Your task to perform on an android device: Empty the shopping cart on target.com. Image 0: 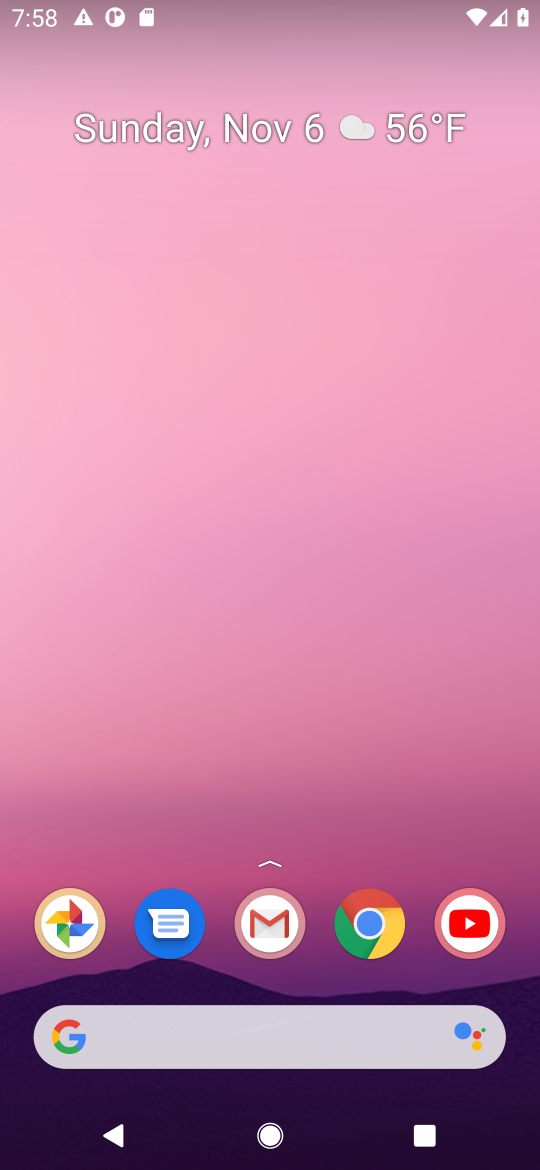
Step 0: click (352, 928)
Your task to perform on an android device: Empty the shopping cart on target.com. Image 1: 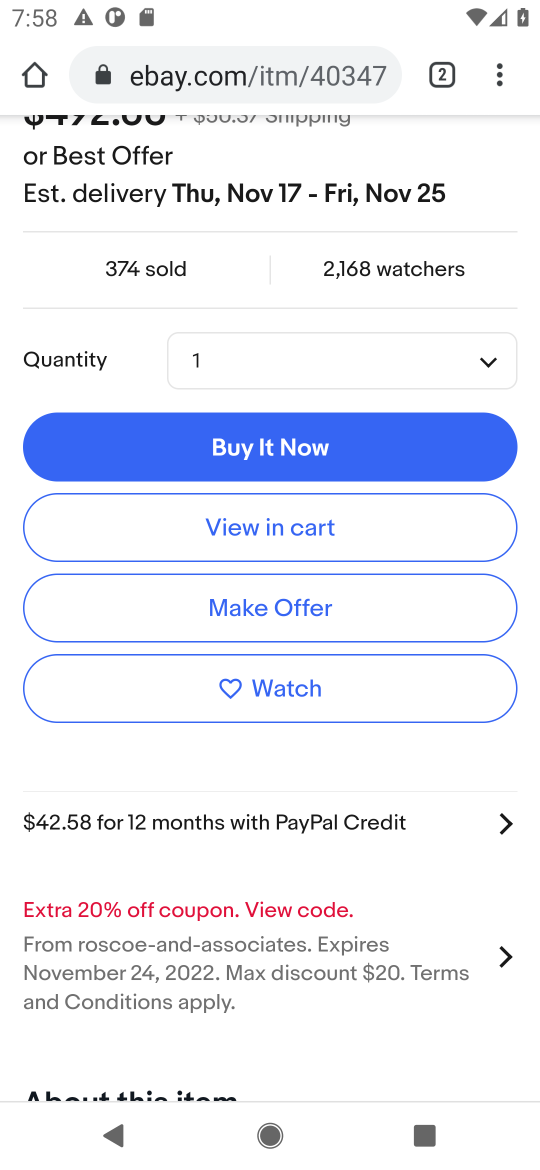
Step 1: click (230, 81)
Your task to perform on an android device: Empty the shopping cart on target.com. Image 2: 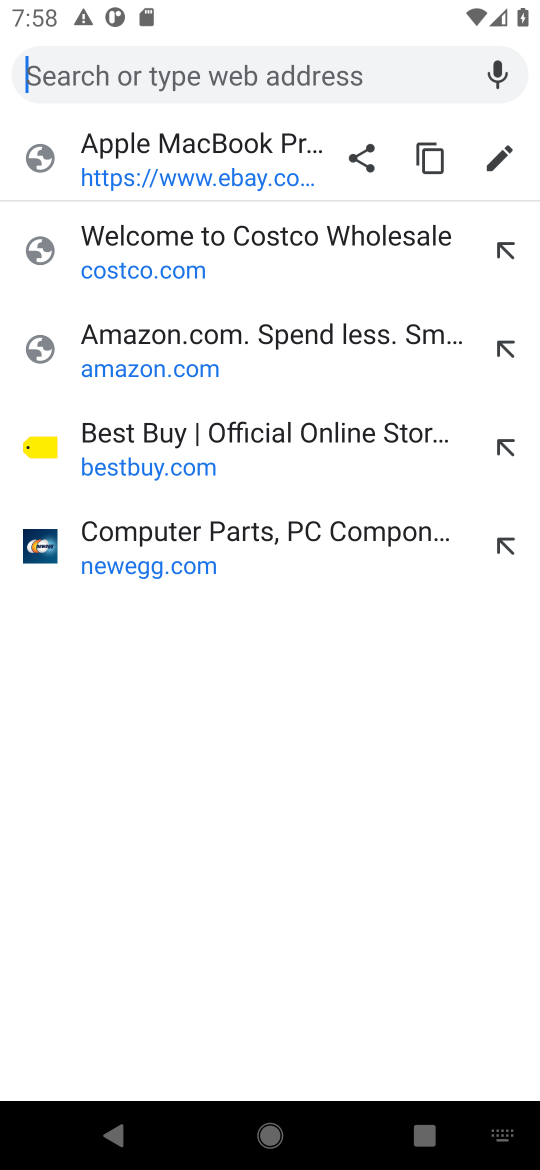
Step 2: type "target.com"
Your task to perform on an android device: Empty the shopping cart on target.com. Image 3: 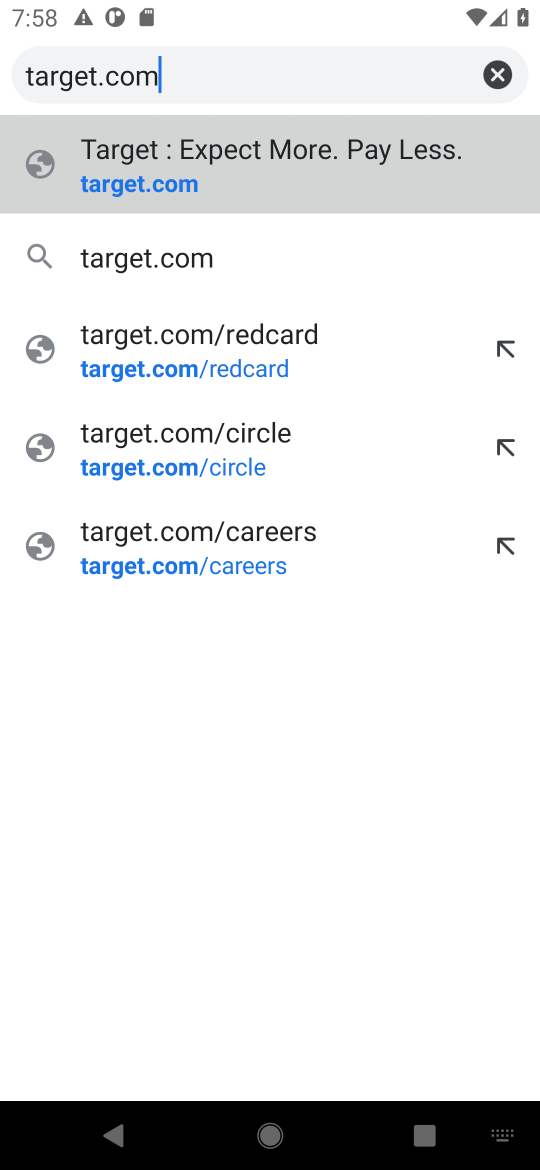
Step 3: click (158, 256)
Your task to perform on an android device: Empty the shopping cart on target.com. Image 4: 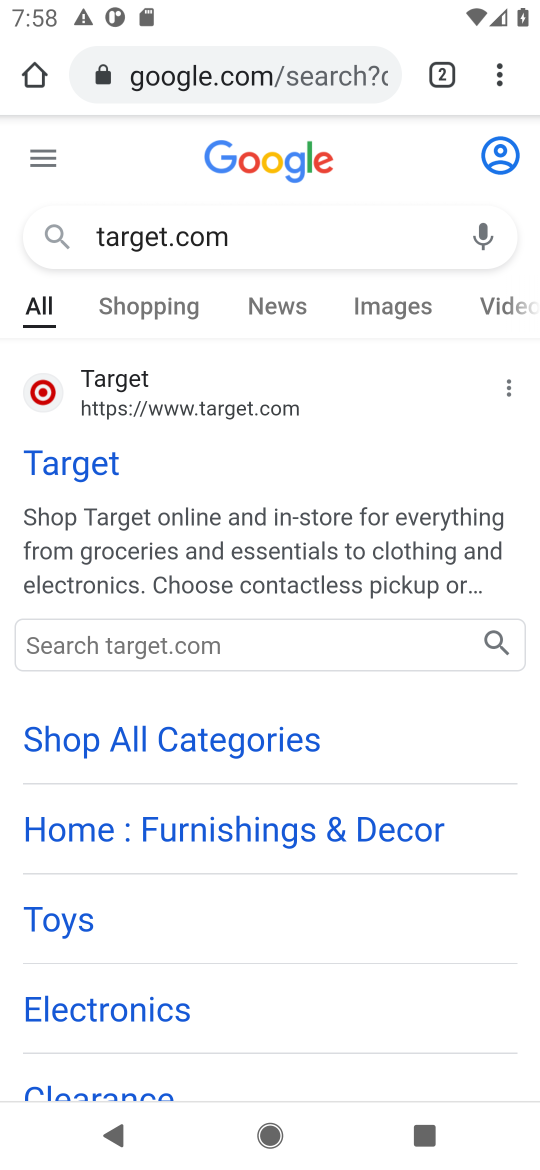
Step 4: click (86, 481)
Your task to perform on an android device: Empty the shopping cart on target.com. Image 5: 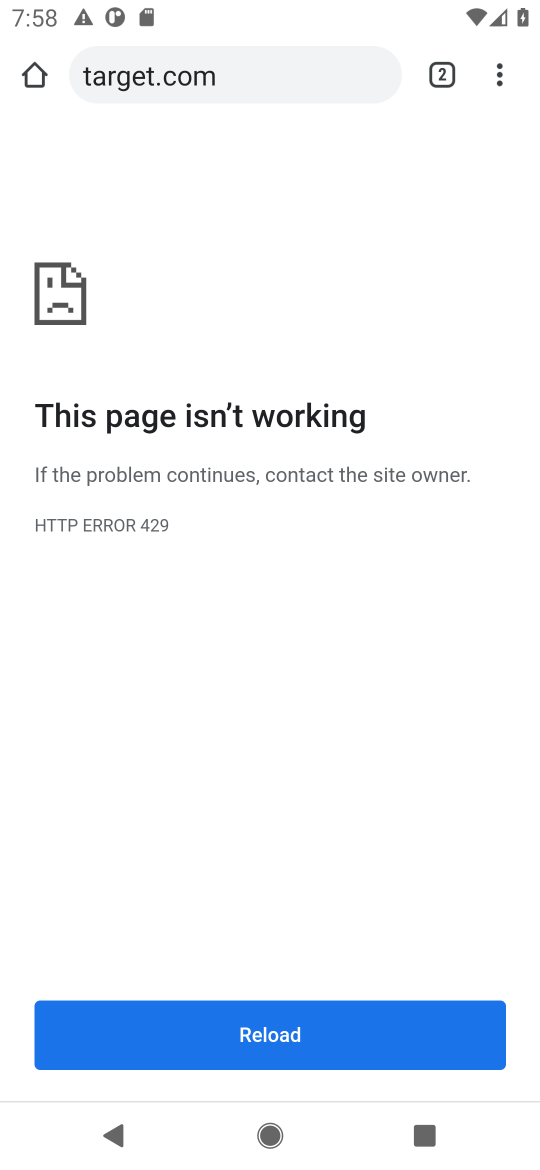
Step 5: click (276, 1045)
Your task to perform on an android device: Empty the shopping cart on target.com. Image 6: 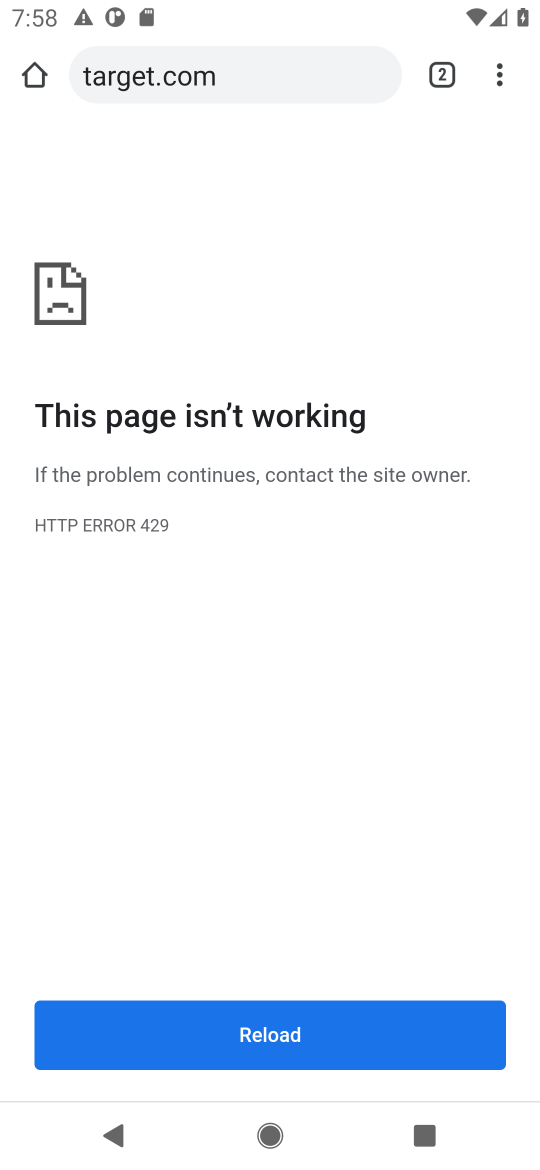
Step 6: press back button
Your task to perform on an android device: Empty the shopping cart on target.com. Image 7: 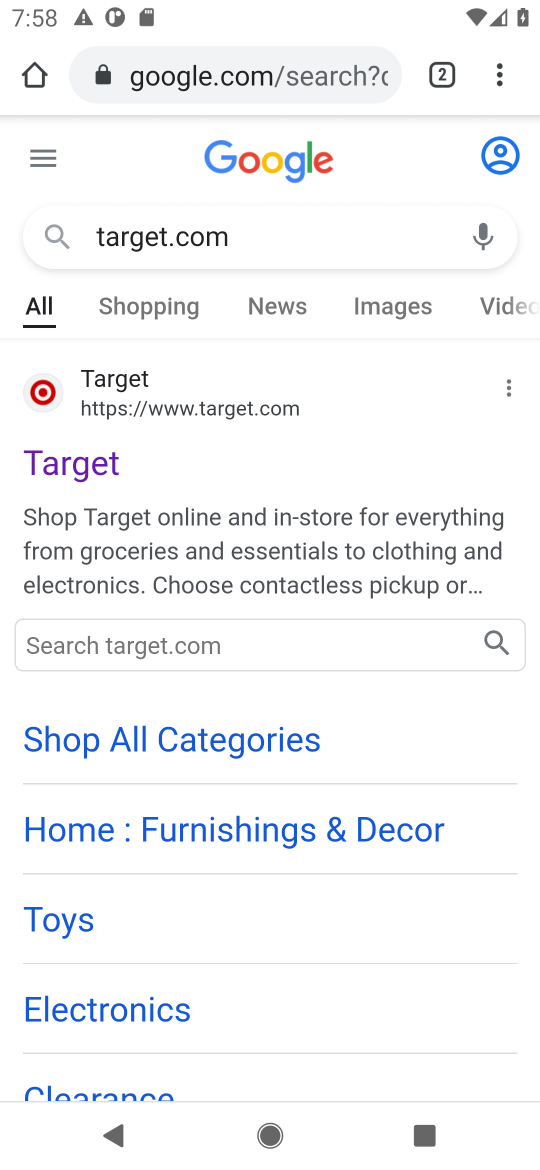
Step 7: drag from (180, 668) to (230, 387)
Your task to perform on an android device: Empty the shopping cart on target.com. Image 8: 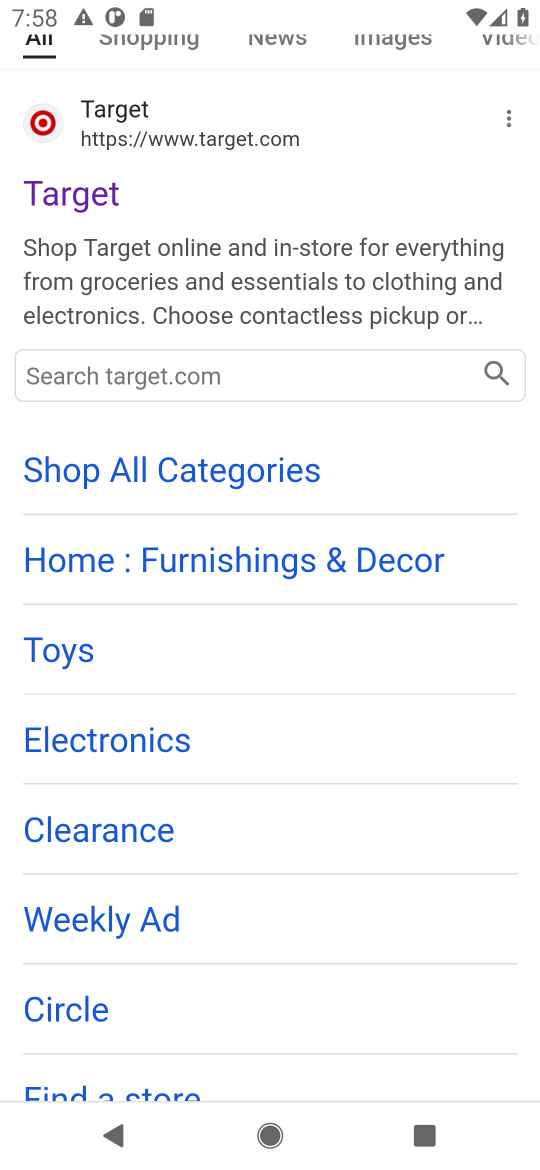
Step 8: drag from (213, 860) to (250, 334)
Your task to perform on an android device: Empty the shopping cart on target.com. Image 9: 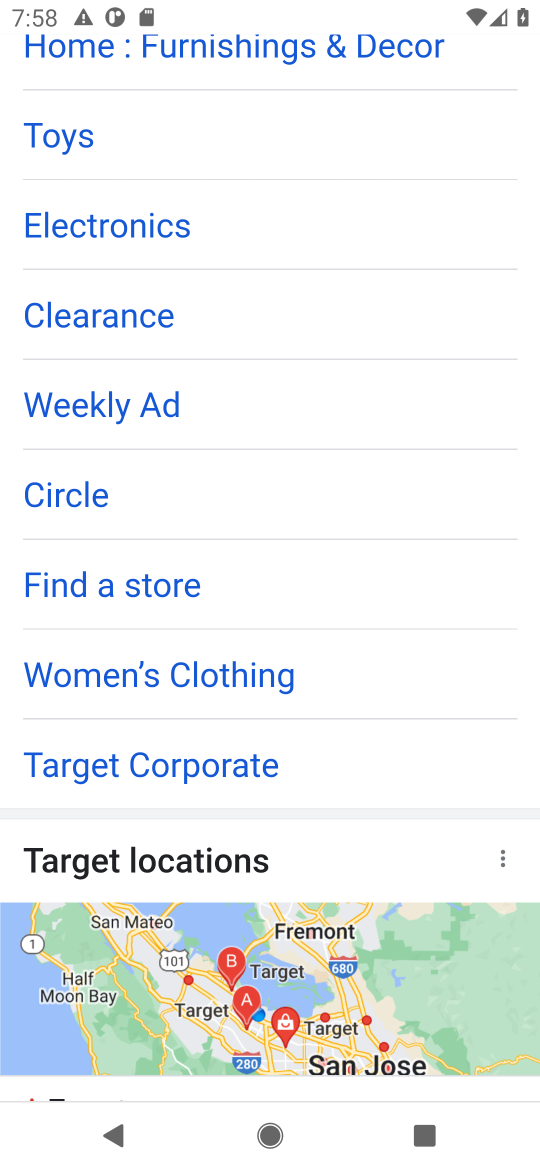
Step 9: drag from (215, 849) to (240, 412)
Your task to perform on an android device: Empty the shopping cart on target.com. Image 10: 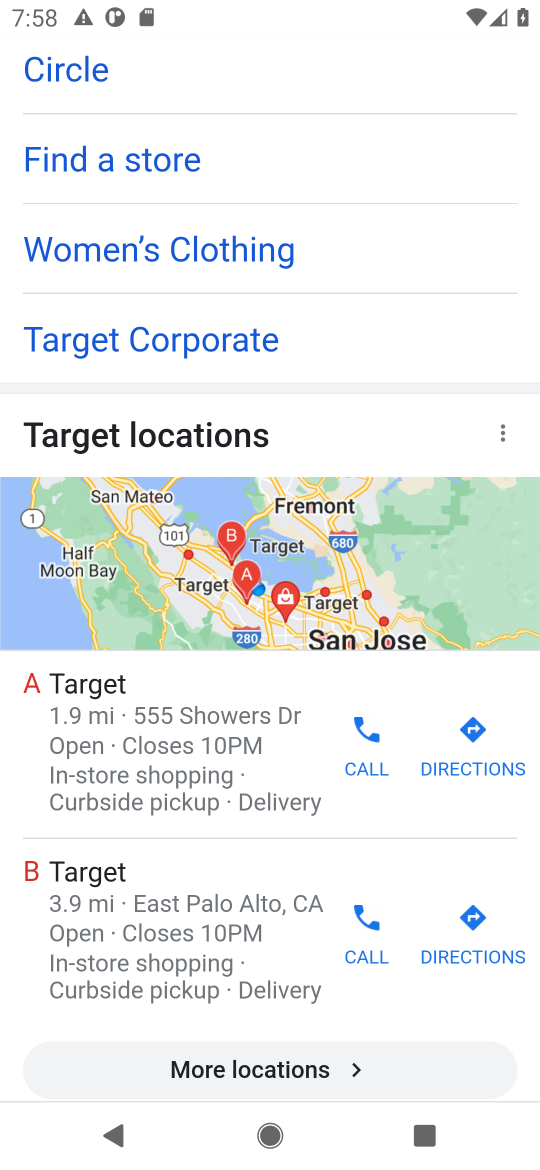
Step 10: drag from (192, 726) to (201, 416)
Your task to perform on an android device: Empty the shopping cart on target.com. Image 11: 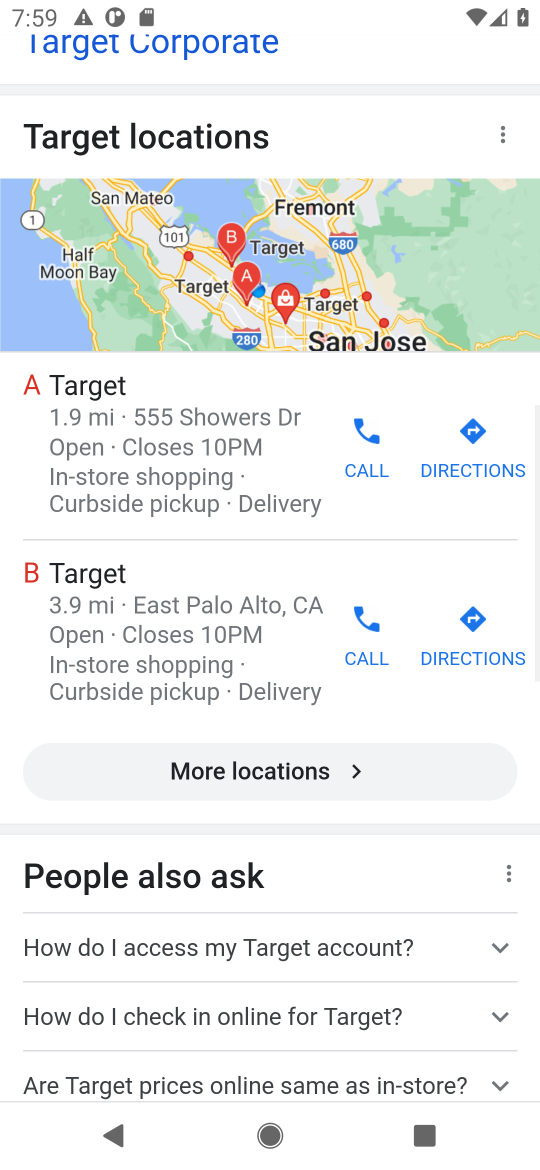
Step 11: drag from (198, 403) to (212, 1115)
Your task to perform on an android device: Empty the shopping cart on target.com. Image 12: 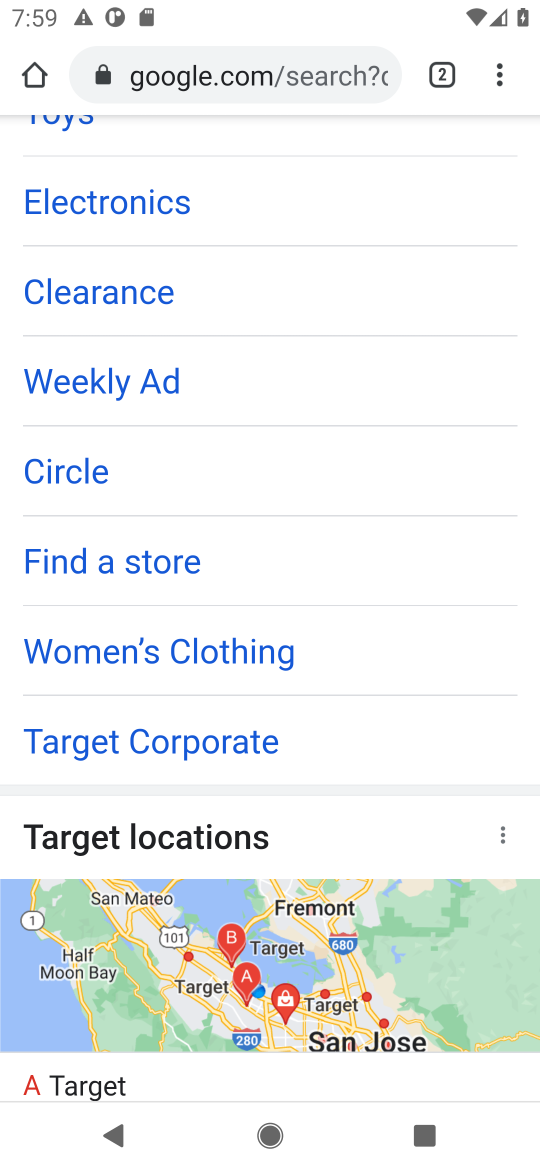
Step 12: drag from (160, 371) to (201, 1004)
Your task to perform on an android device: Empty the shopping cart on target.com. Image 13: 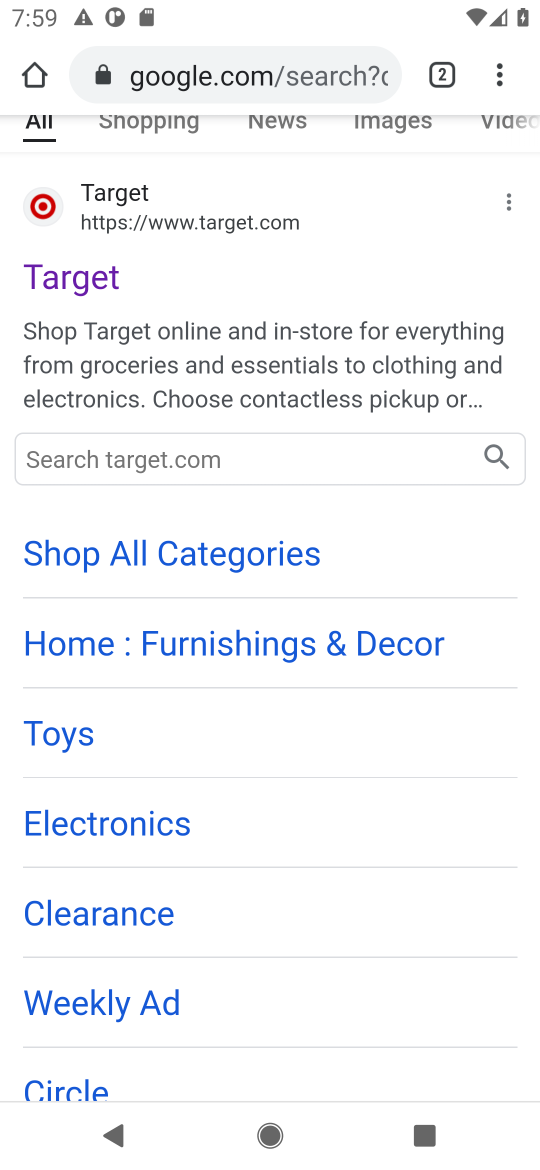
Step 13: click (93, 261)
Your task to perform on an android device: Empty the shopping cart on target.com. Image 14: 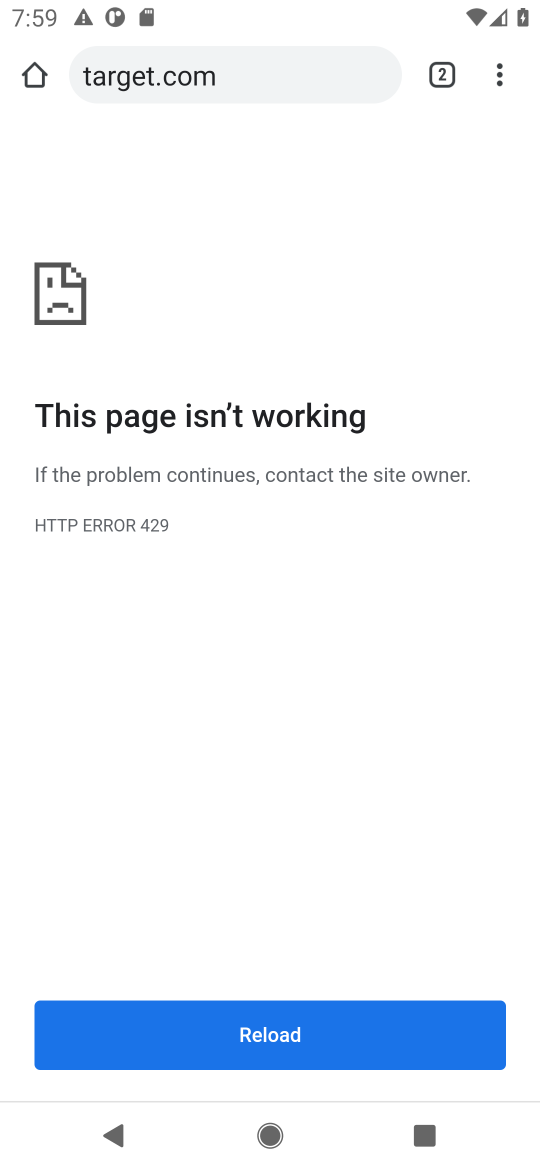
Step 14: task complete